Your task to perform on an android device: Open Android settings Image 0: 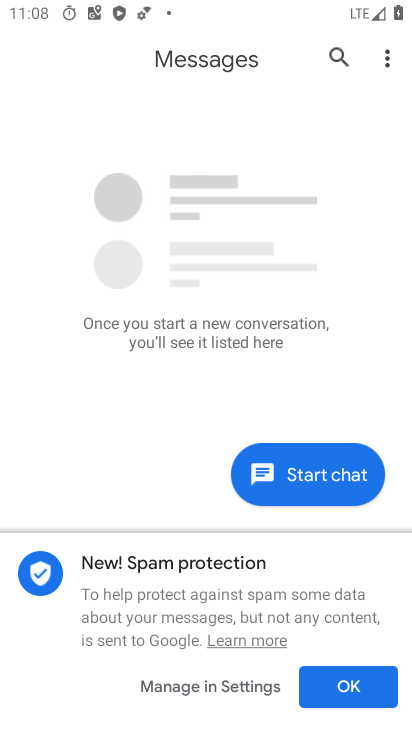
Step 0: press home button
Your task to perform on an android device: Open Android settings Image 1: 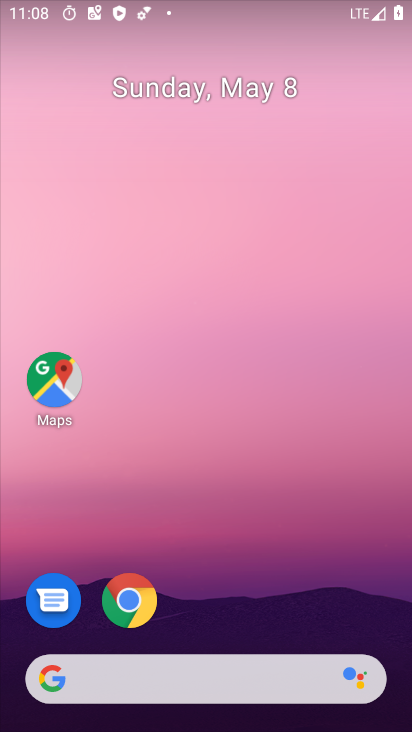
Step 1: drag from (40, 591) to (241, 214)
Your task to perform on an android device: Open Android settings Image 2: 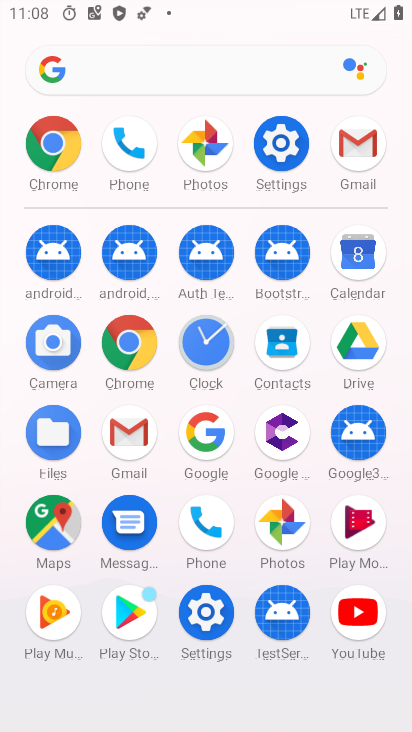
Step 2: click (264, 139)
Your task to perform on an android device: Open Android settings Image 3: 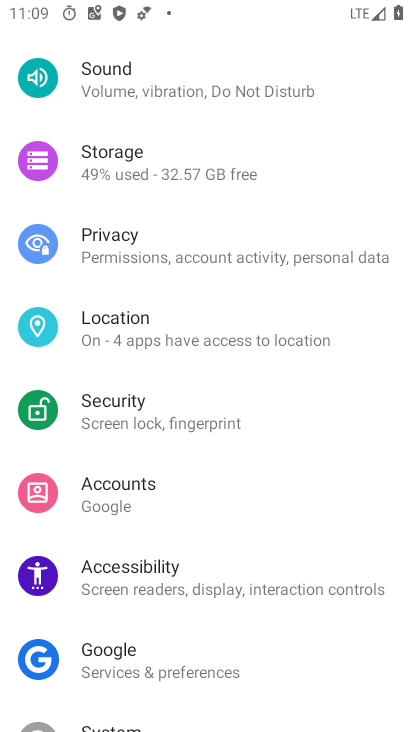
Step 3: drag from (117, 654) to (262, 200)
Your task to perform on an android device: Open Android settings Image 4: 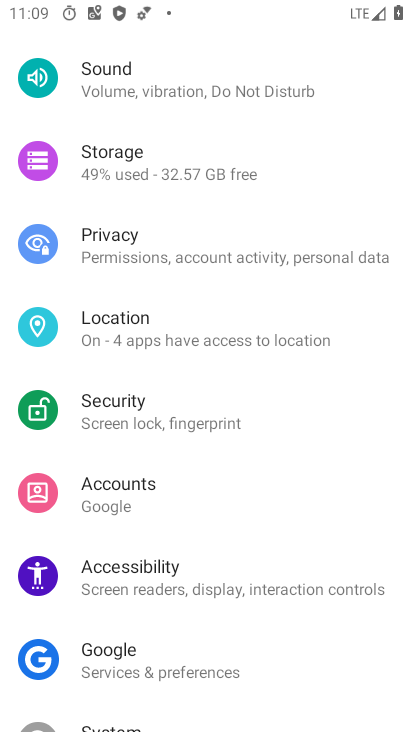
Step 4: drag from (80, 658) to (386, 197)
Your task to perform on an android device: Open Android settings Image 5: 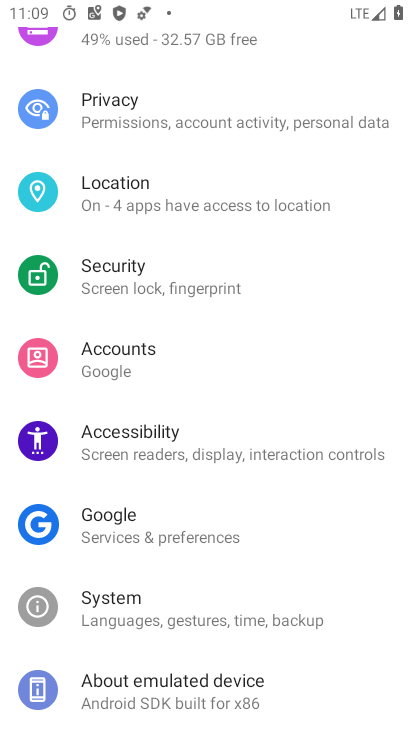
Step 5: drag from (173, 571) to (379, 137)
Your task to perform on an android device: Open Android settings Image 6: 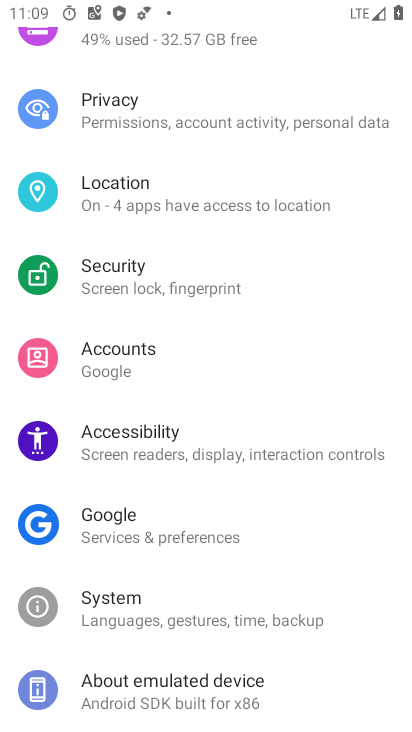
Step 6: drag from (156, 690) to (350, 58)
Your task to perform on an android device: Open Android settings Image 7: 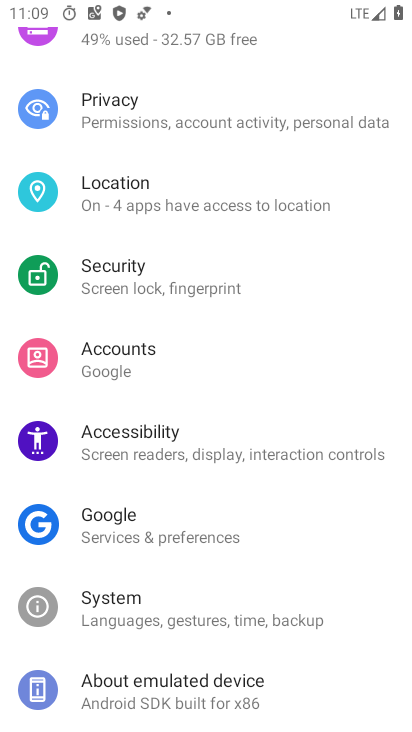
Step 7: click (184, 627)
Your task to perform on an android device: Open Android settings Image 8: 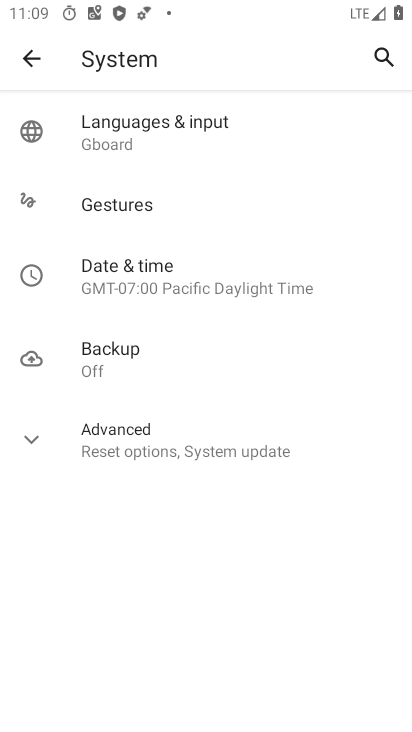
Step 8: press back button
Your task to perform on an android device: Open Android settings Image 9: 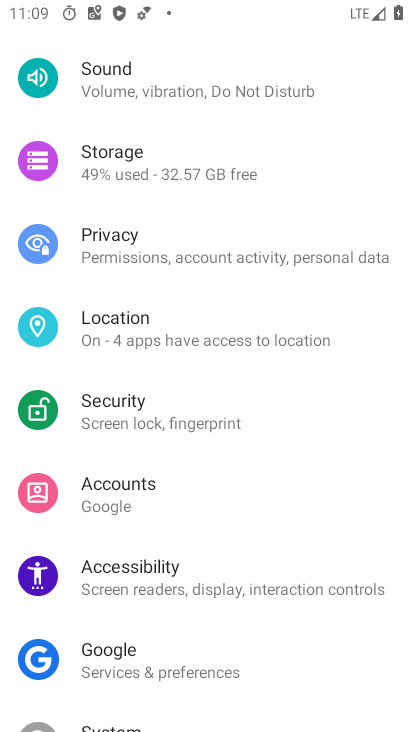
Step 9: drag from (147, 706) to (350, 166)
Your task to perform on an android device: Open Android settings Image 10: 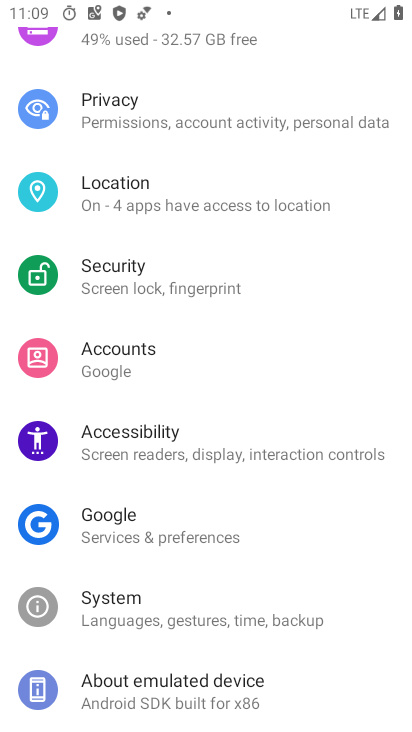
Step 10: click (156, 677)
Your task to perform on an android device: Open Android settings Image 11: 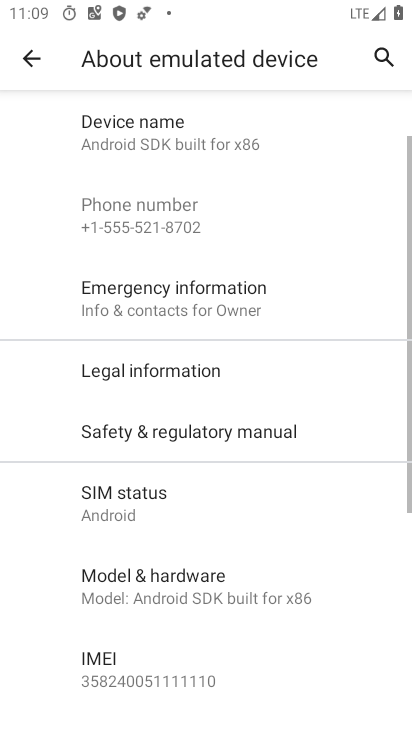
Step 11: task complete